Your task to perform on an android device: What's on my calendar tomorrow? Image 0: 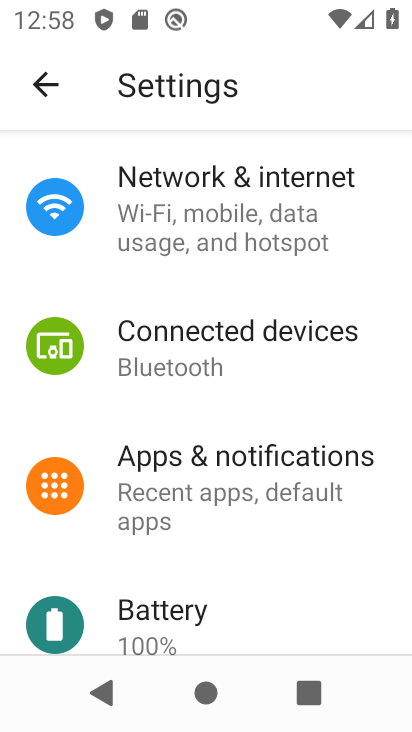
Step 0: press home button
Your task to perform on an android device: What's on my calendar tomorrow? Image 1: 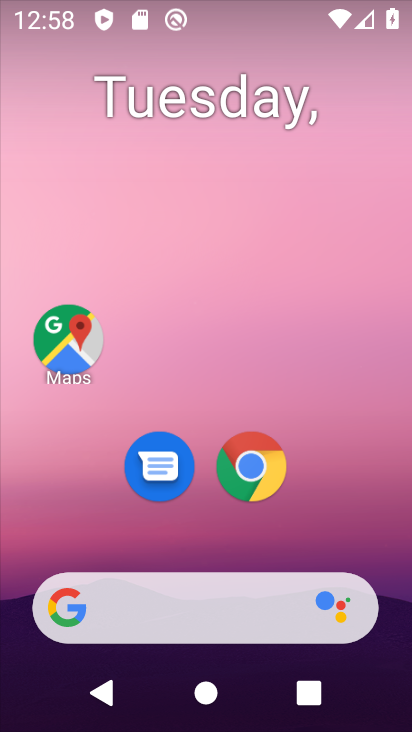
Step 1: drag from (365, 516) to (312, 137)
Your task to perform on an android device: What's on my calendar tomorrow? Image 2: 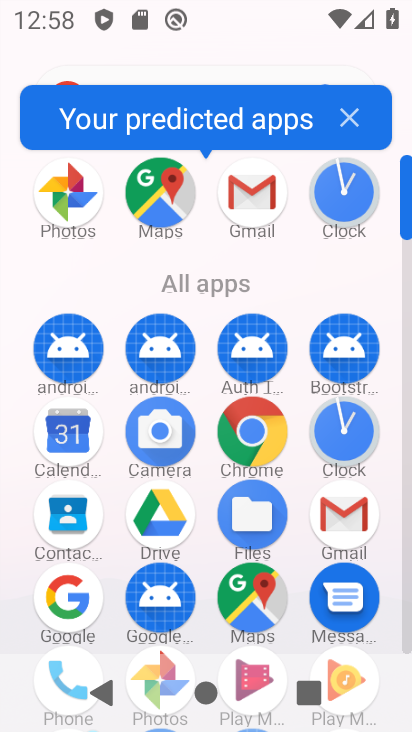
Step 2: click (84, 447)
Your task to perform on an android device: What's on my calendar tomorrow? Image 3: 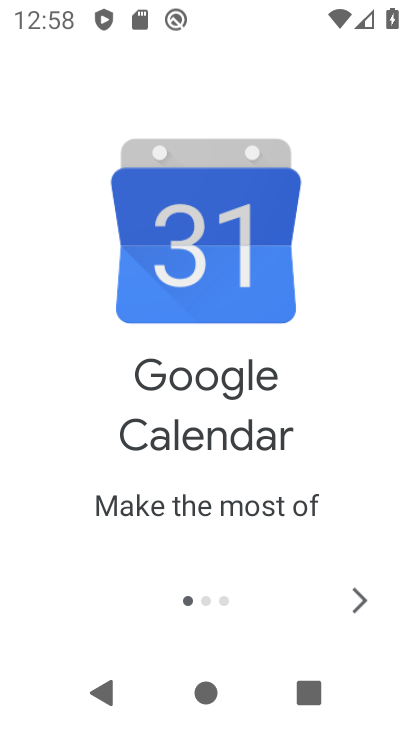
Step 3: click (379, 598)
Your task to perform on an android device: What's on my calendar tomorrow? Image 4: 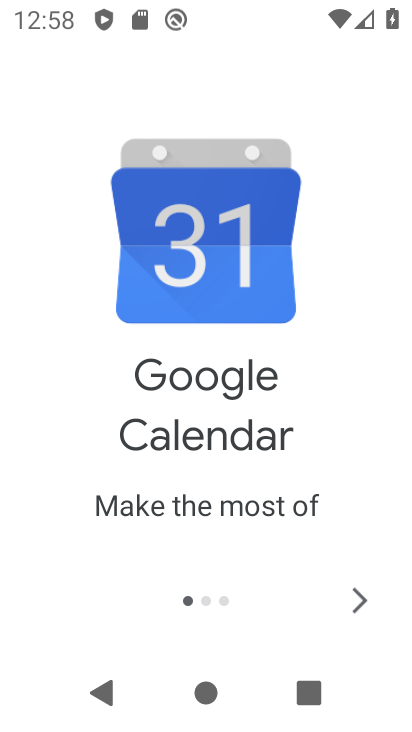
Step 4: click (379, 598)
Your task to perform on an android device: What's on my calendar tomorrow? Image 5: 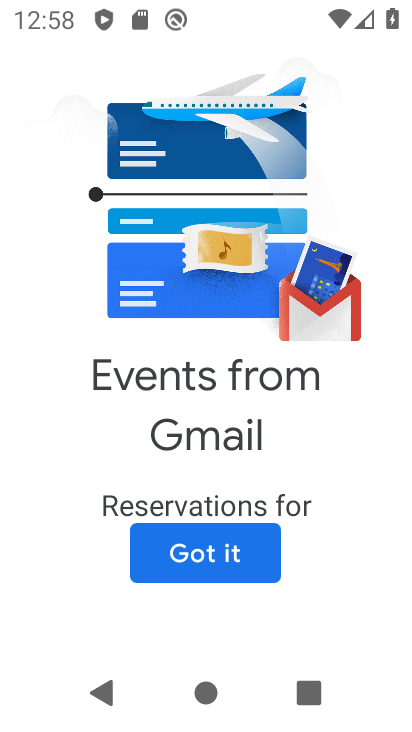
Step 5: click (197, 561)
Your task to perform on an android device: What's on my calendar tomorrow? Image 6: 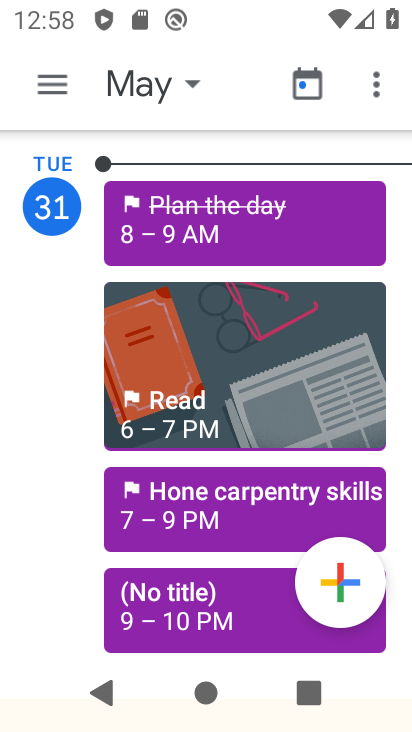
Step 6: click (197, 78)
Your task to perform on an android device: What's on my calendar tomorrow? Image 7: 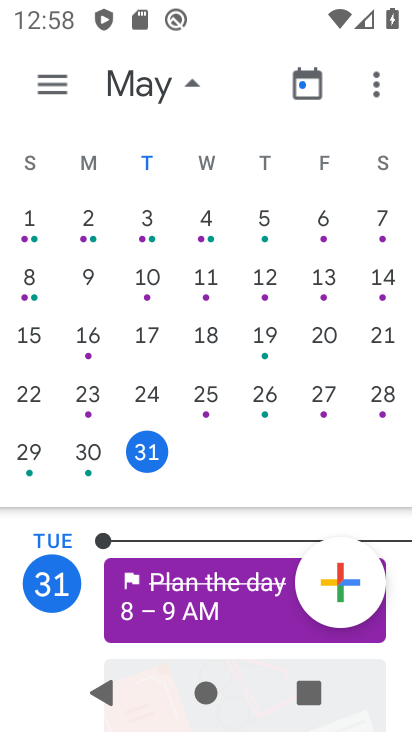
Step 7: task complete